Your task to perform on an android device: toggle notifications settings in the gmail app Image 0: 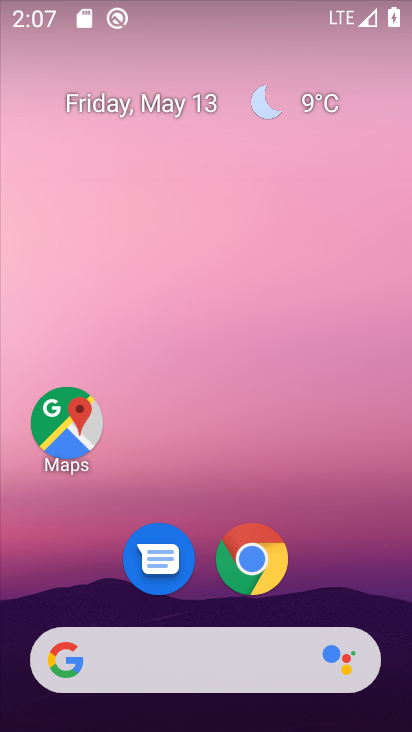
Step 0: drag from (394, 658) to (379, 179)
Your task to perform on an android device: toggle notifications settings in the gmail app Image 1: 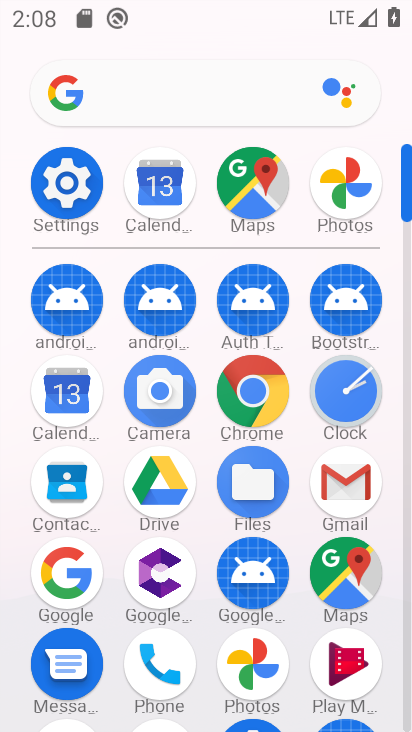
Step 1: click (334, 479)
Your task to perform on an android device: toggle notifications settings in the gmail app Image 2: 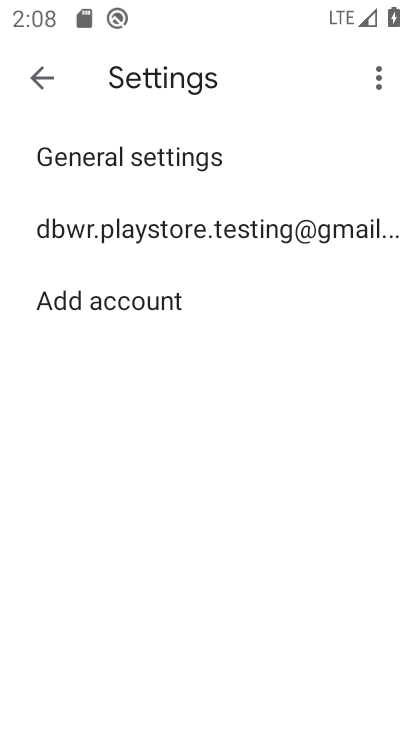
Step 2: click (89, 151)
Your task to perform on an android device: toggle notifications settings in the gmail app Image 3: 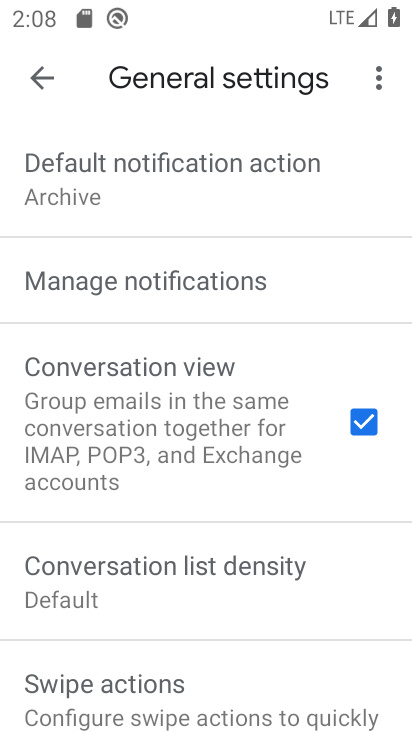
Step 3: click (98, 288)
Your task to perform on an android device: toggle notifications settings in the gmail app Image 4: 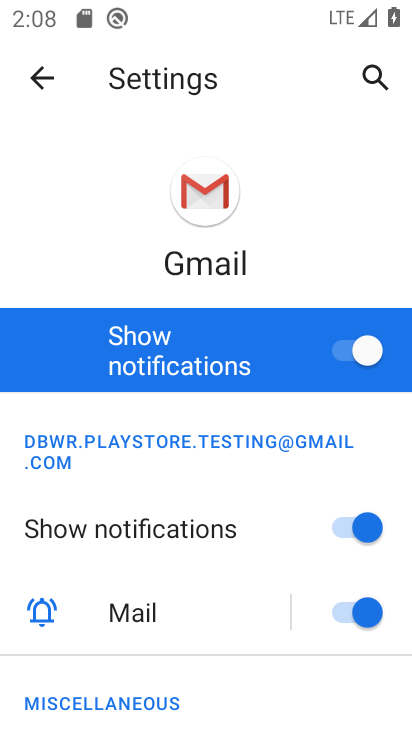
Step 4: click (335, 353)
Your task to perform on an android device: toggle notifications settings in the gmail app Image 5: 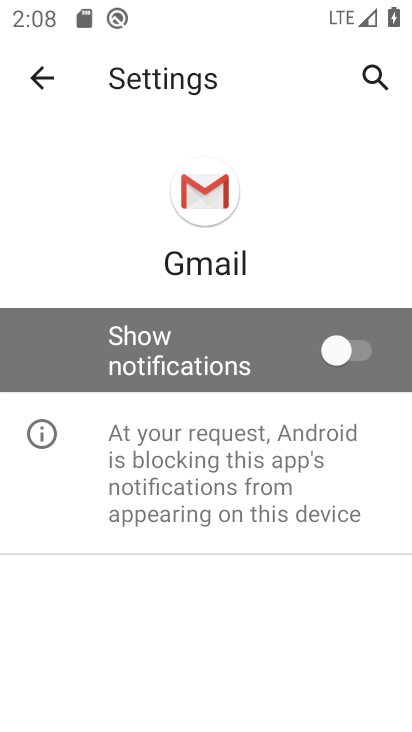
Step 5: task complete